Your task to perform on an android device: turn on translation in the chrome app Image 0: 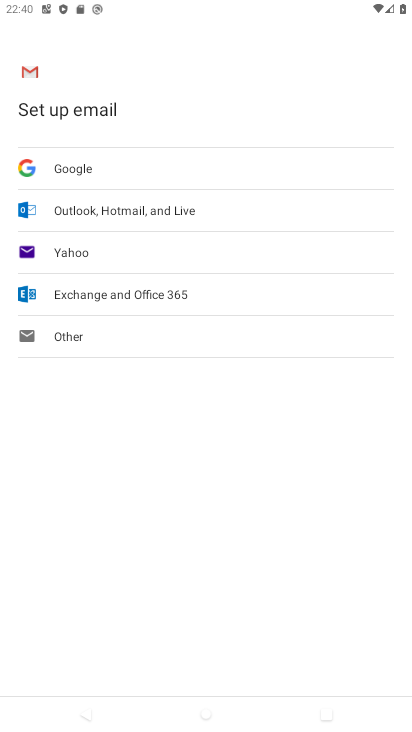
Step 0: press home button
Your task to perform on an android device: turn on translation in the chrome app Image 1: 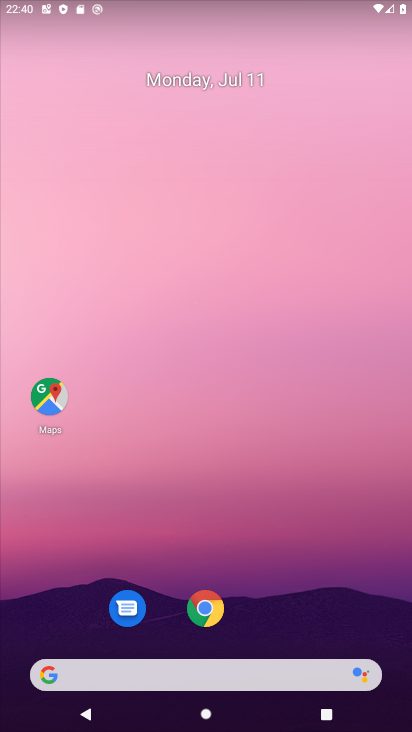
Step 1: click (205, 604)
Your task to perform on an android device: turn on translation in the chrome app Image 2: 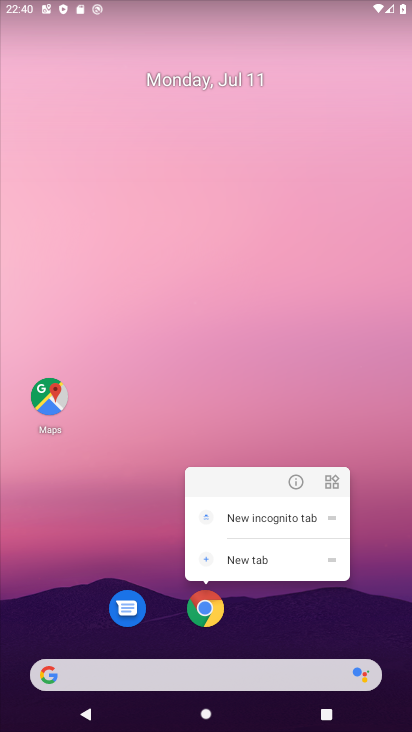
Step 2: click (204, 615)
Your task to perform on an android device: turn on translation in the chrome app Image 3: 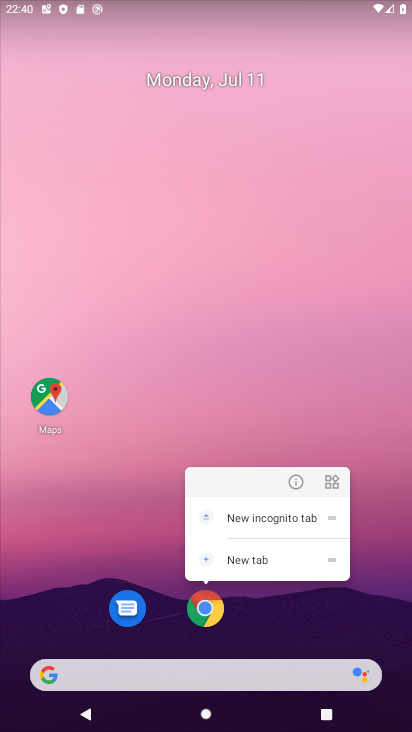
Step 3: click (206, 611)
Your task to perform on an android device: turn on translation in the chrome app Image 4: 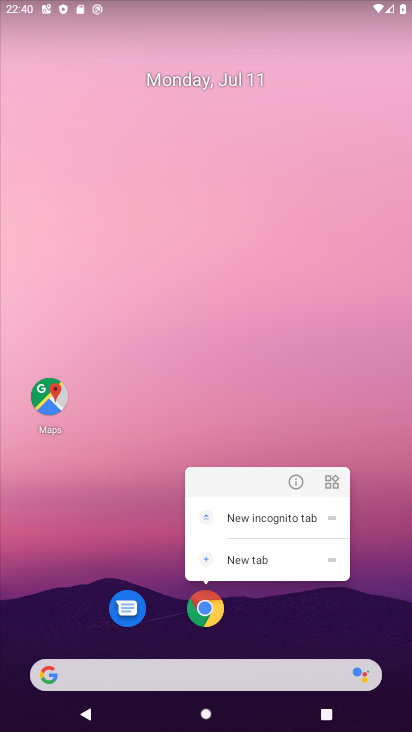
Step 4: click (211, 593)
Your task to perform on an android device: turn on translation in the chrome app Image 5: 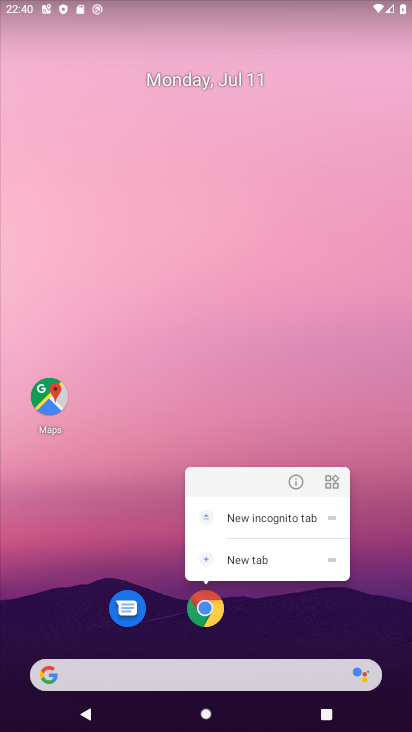
Step 5: click (206, 603)
Your task to perform on an android device: turn on translation in the chrome app Image 6: 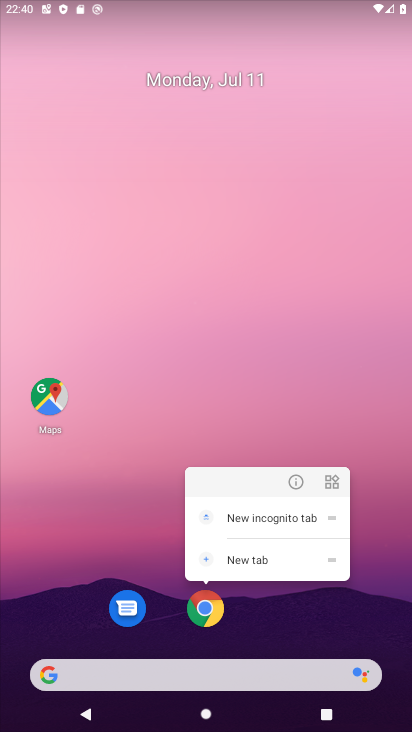
Step 6: task complete